Your task to perform on an android device: Empty the shopping cart on walmart.com. Add apple airpods pro to the cart on walmart.com Image 0: 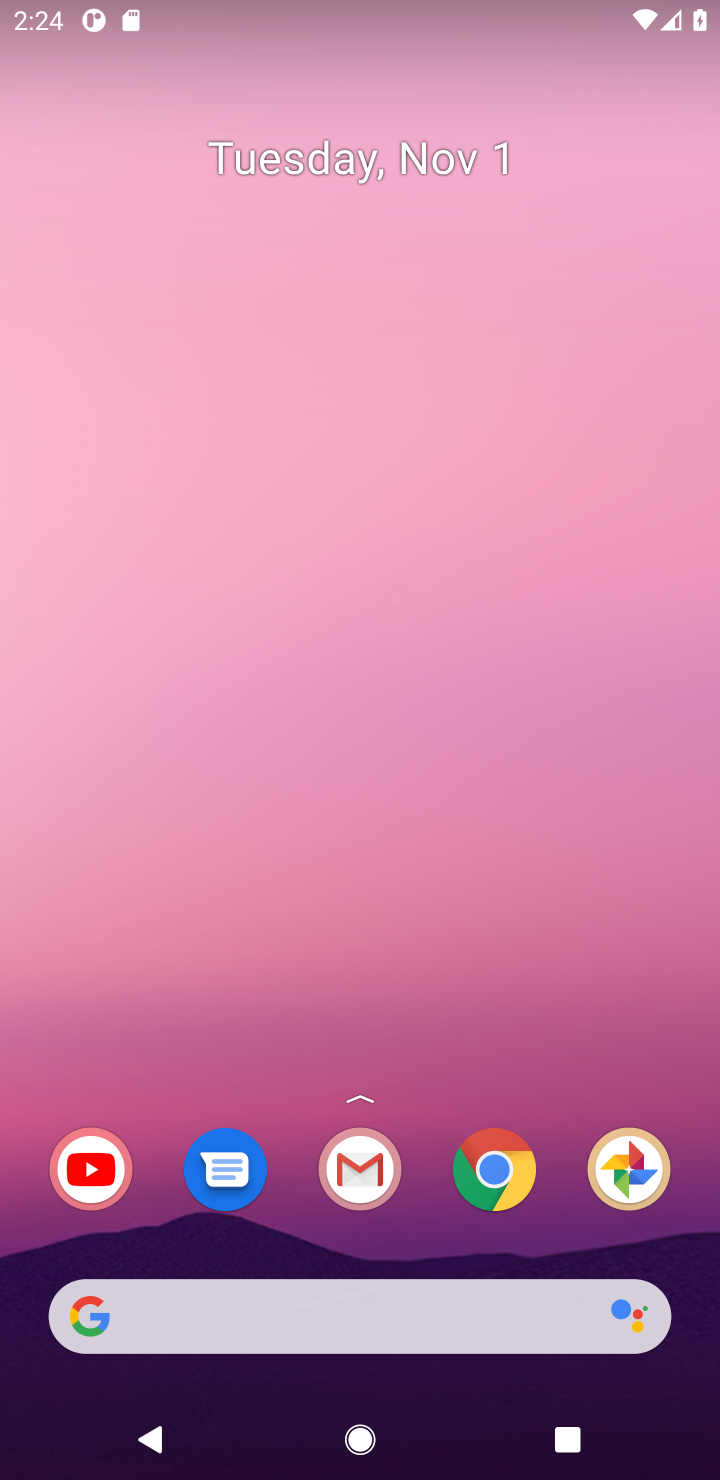
Step 0: drag from (427, 1071) to (457, 0)
Your task to perform on an android device: Empty the shopping cart on walmart.com. Add apple airpods pro to the cart on walmart.com Image 1: 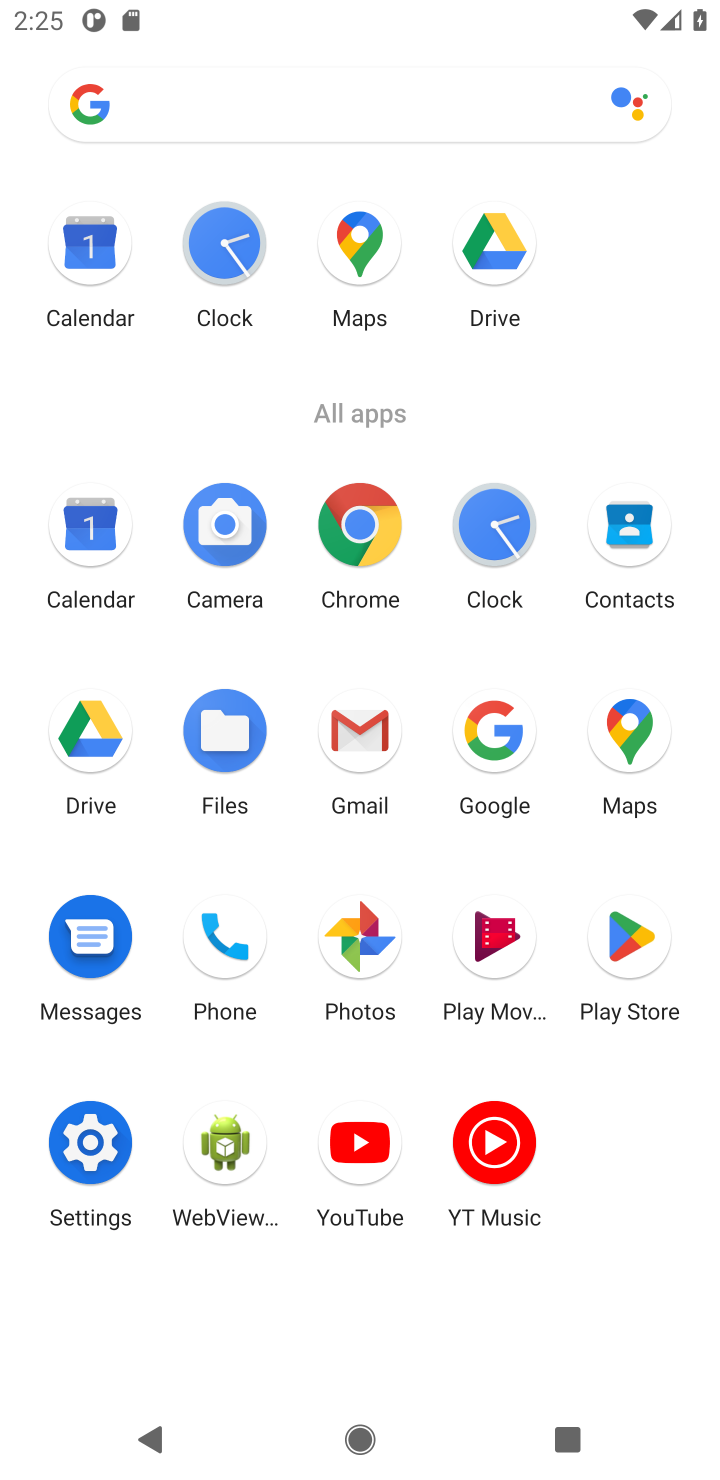
Step 1: click (354, 523)
Your task to perform on an android device: Empty the shopping cart on walmart.com. Add apple airpods pro to the cart on walmart.com Image 2: 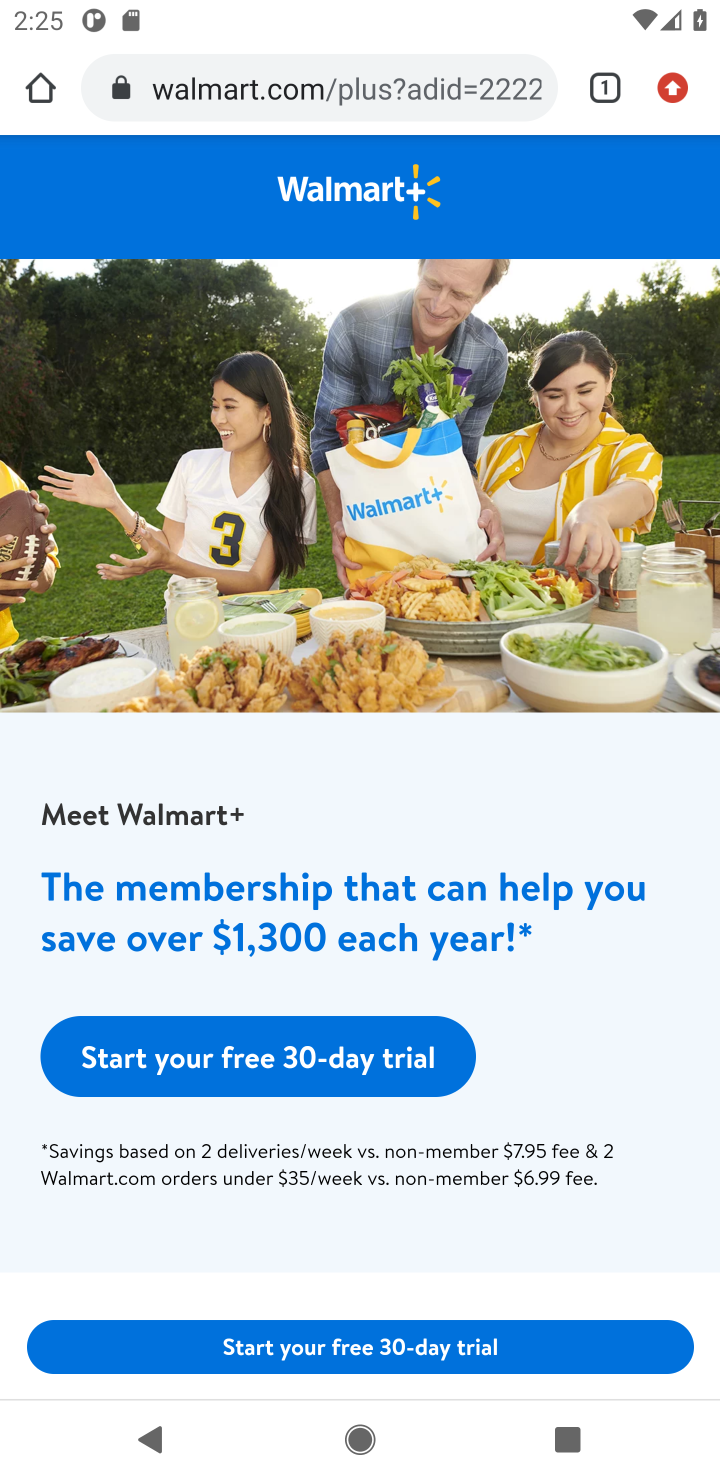
Step 2: click (259, 89)
Your task to perform on an android device: Empty the shopping cart on walmart.com. Add apple airpods pro to the cart on walmart.com Image 3: 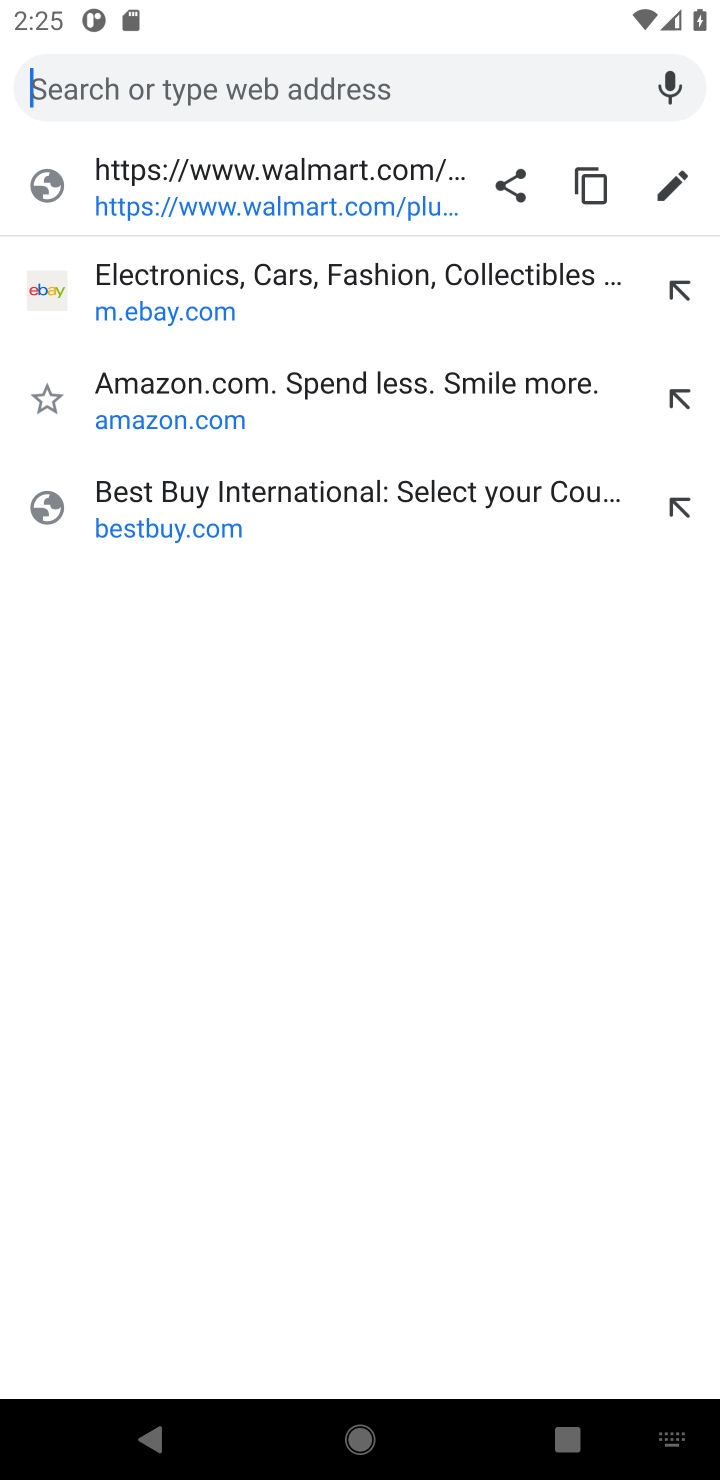
Step 3: type "walmart.com"
Your task to perform on an android device: Empty the shopping cart on walmart.com. Add apple airpods pro to the cart on walmart.com Image 4: 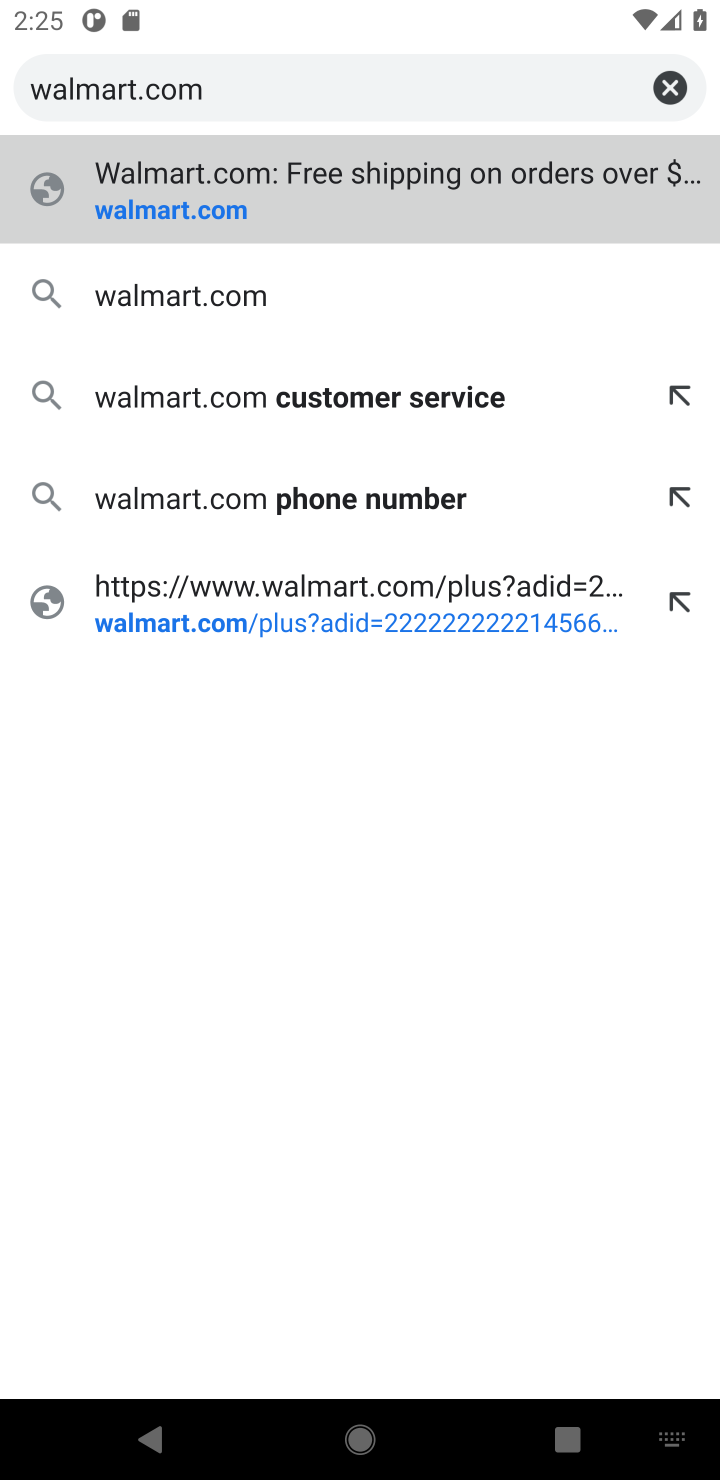
Step 4: type ""
Your task to perform on an android device: Empty the shopping cart on walmart.com. Add apple airpods pro to the cart on walmart.com Image 5: 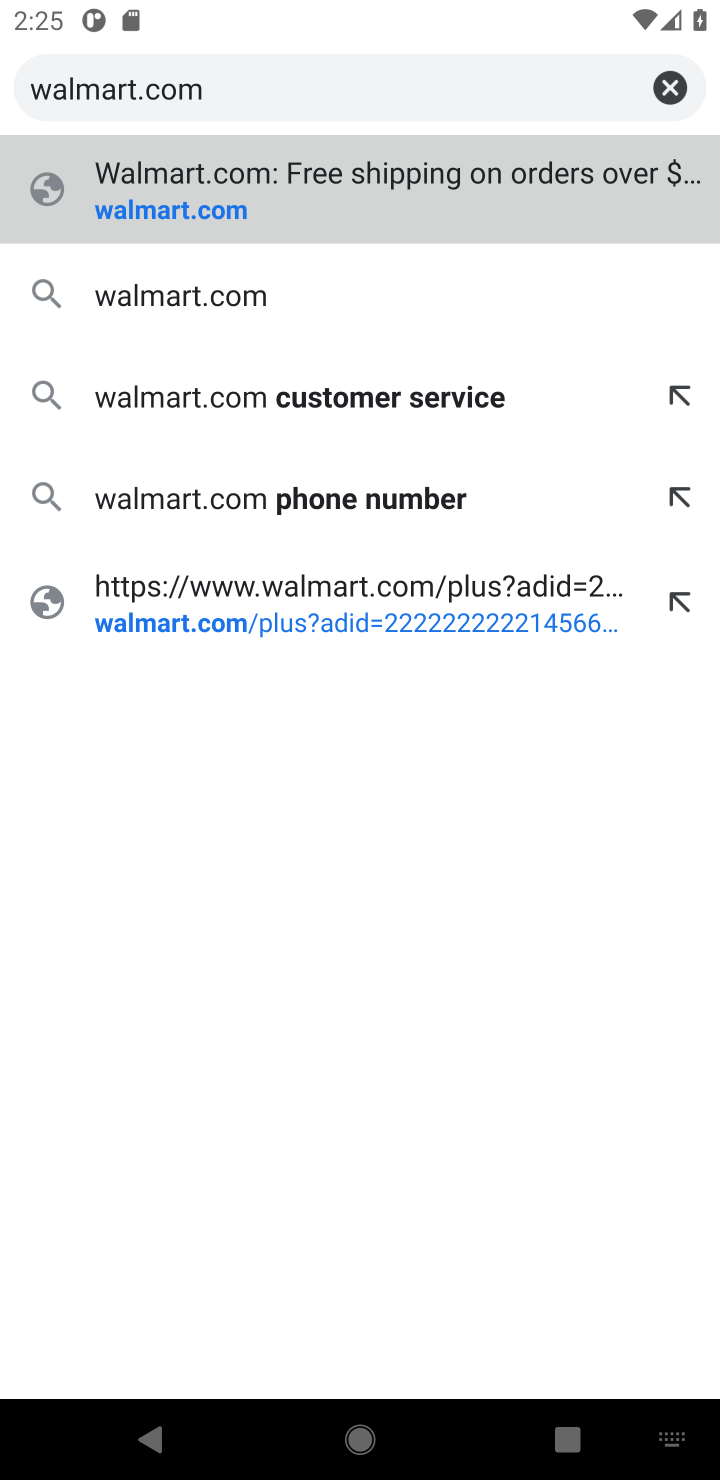
Step 5: click (272, 188)
Your task to perform on an android device: Empty the shopping cart on walmart.com. Add apple airpods pro to the cart on walmart.com Image 6: 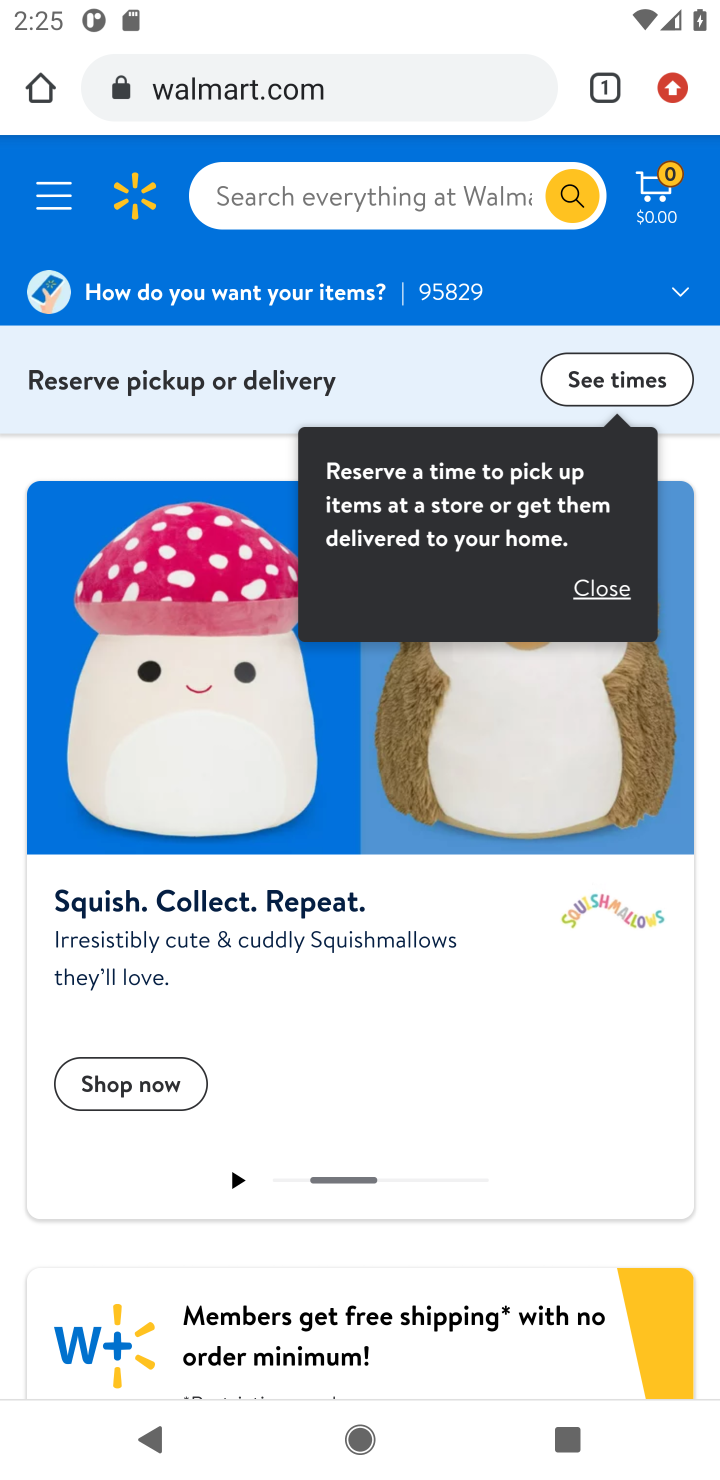
Step 6: click (621, 591)
Your task to perform on an android device: Empty the shopping cart on walmart.com. Add apple airpods pro to the cart on walmart.com Image 7: 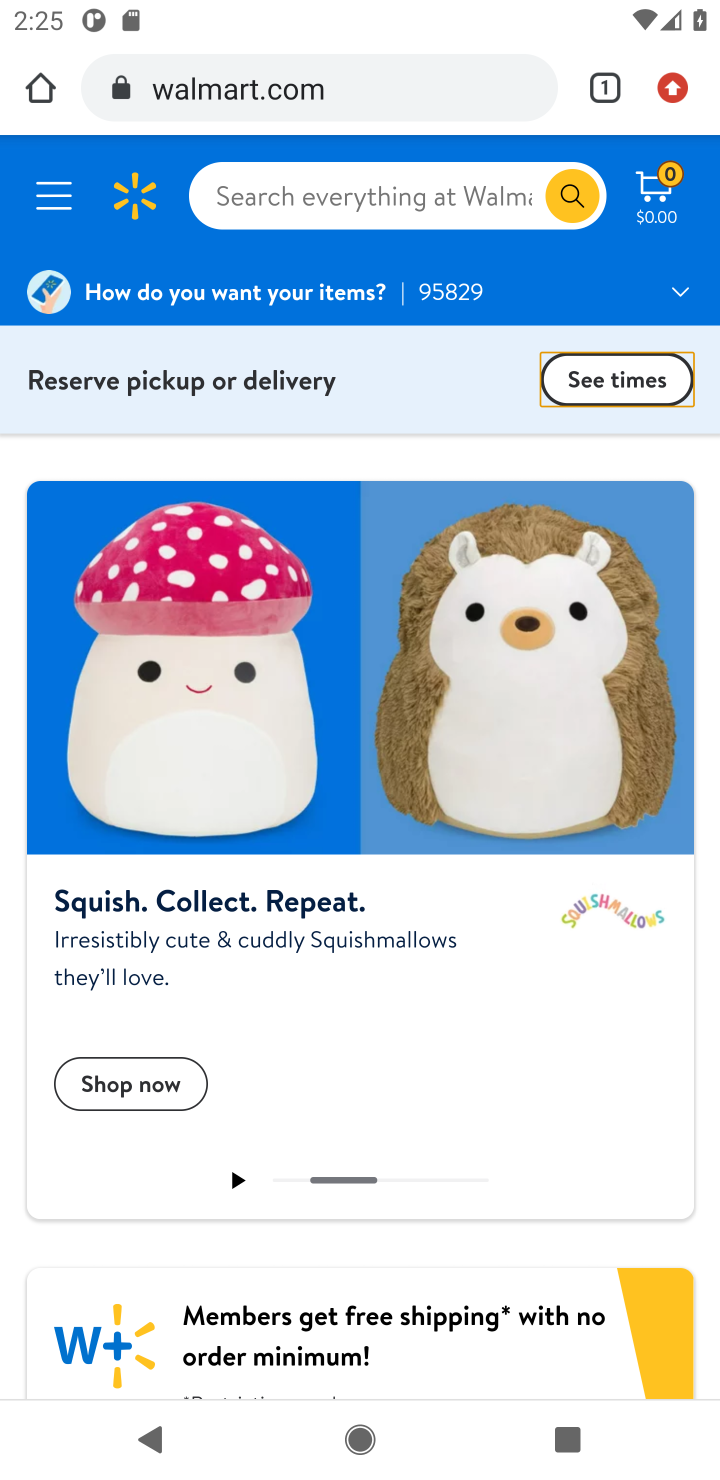
Step 7: click (307, 185)
Your task to perform on an android device: Empty the shopping cart on walmart.com. Add apple airpods pro to the cart on walmart.com Image 8: 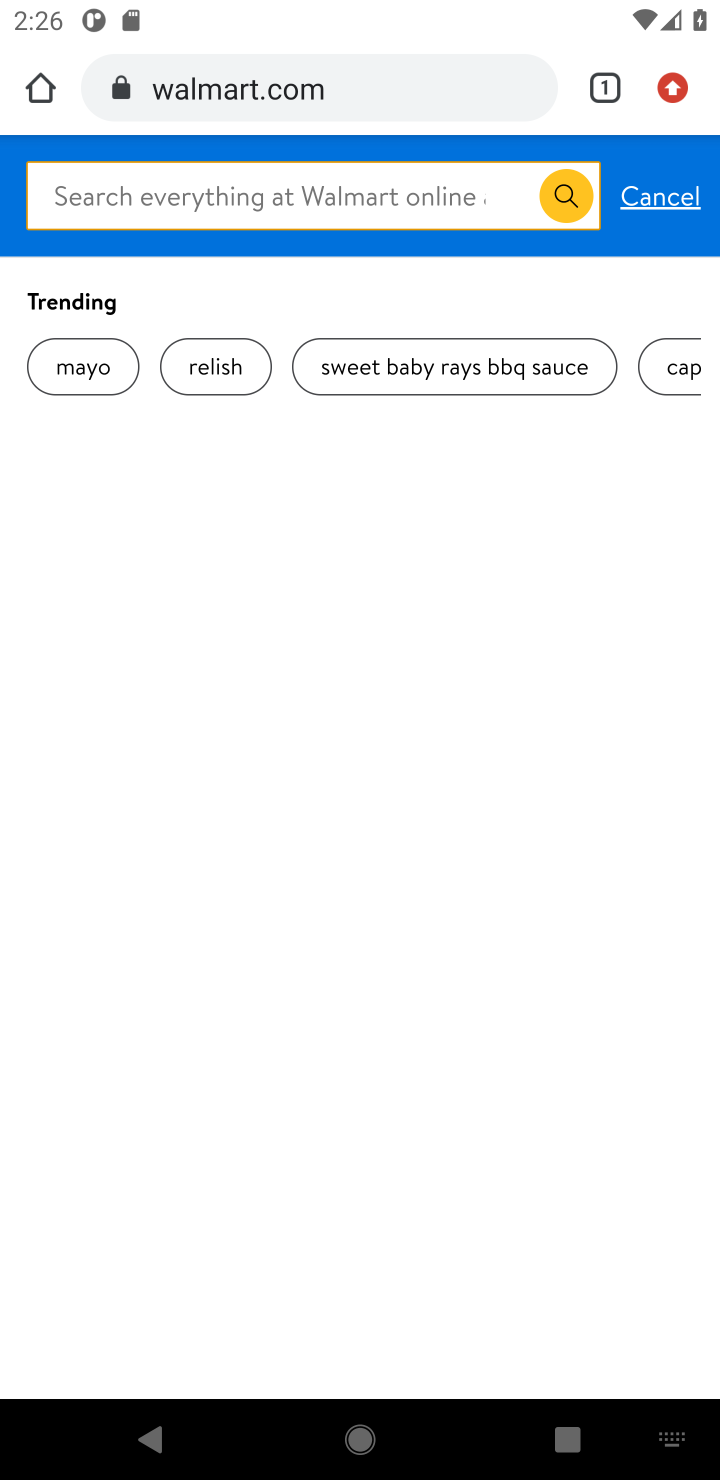
Step 8: type "apple airpods pro"
Your task to perform on an android device: Empty the shopping cart on walmart.com. Add apple airpods pro to the cart on walmart.com Image 9: 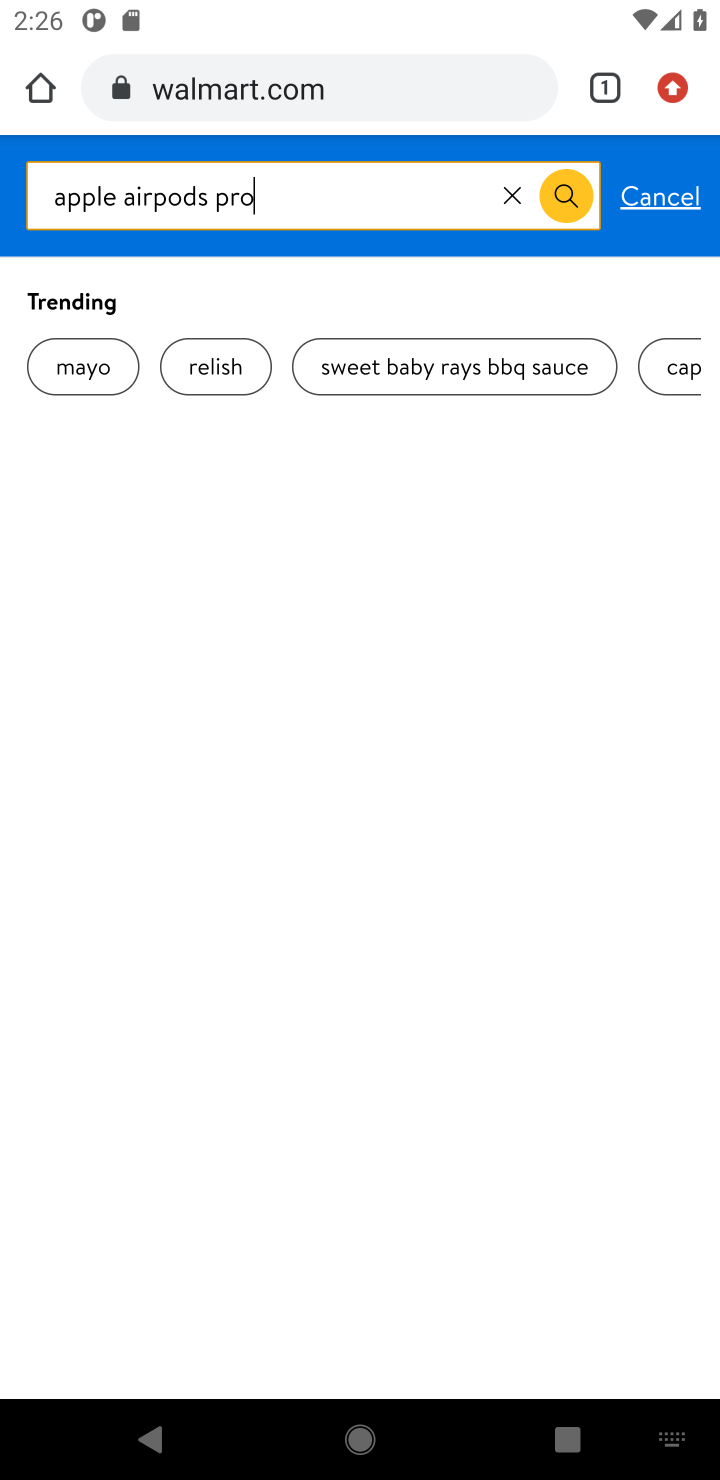
Step 9: type ""
Your task to perform on an android device: Empty the shopping cart on walmart.com. Add apple airpods pro to the cart on walmart.com Image 10: 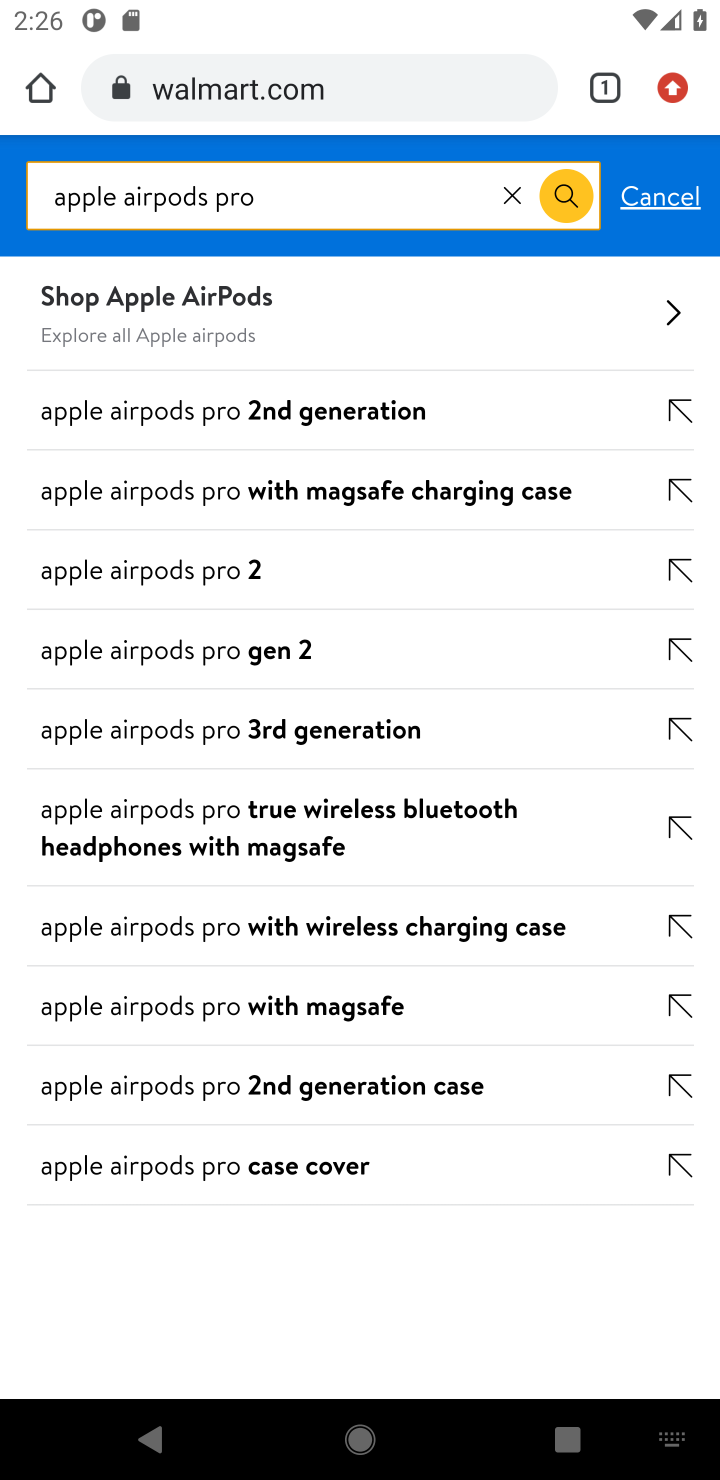
Step 10: click (261, 575)
Your task to perform on an android device: Empty the shopping cart on walmart.com. Add apple airpods pro to the cart on walmart.com Image 11: 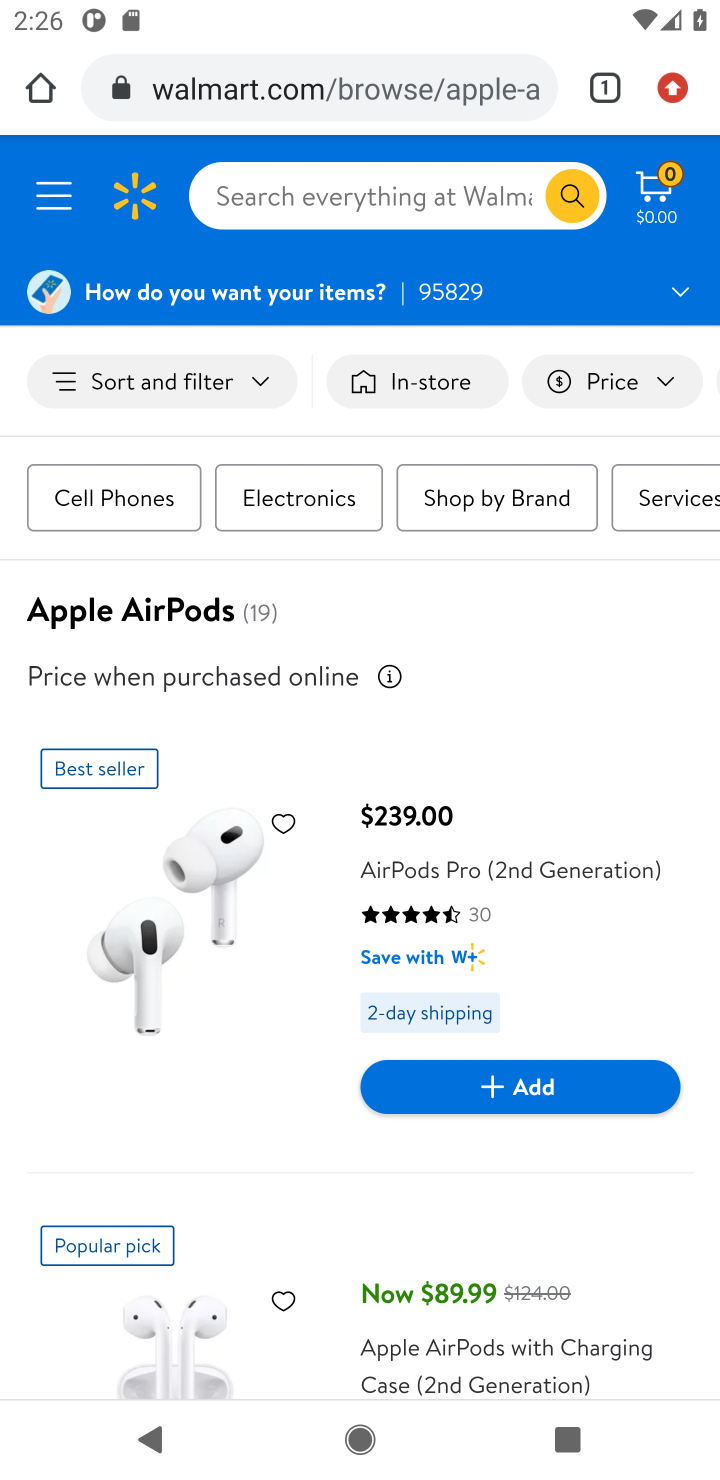
Step 11: click (448, 886)
Your task to perform on an android device: Empty the shopping cart on walmart.com. Add apple airpods pro to the cart on walmart.com Image 12: 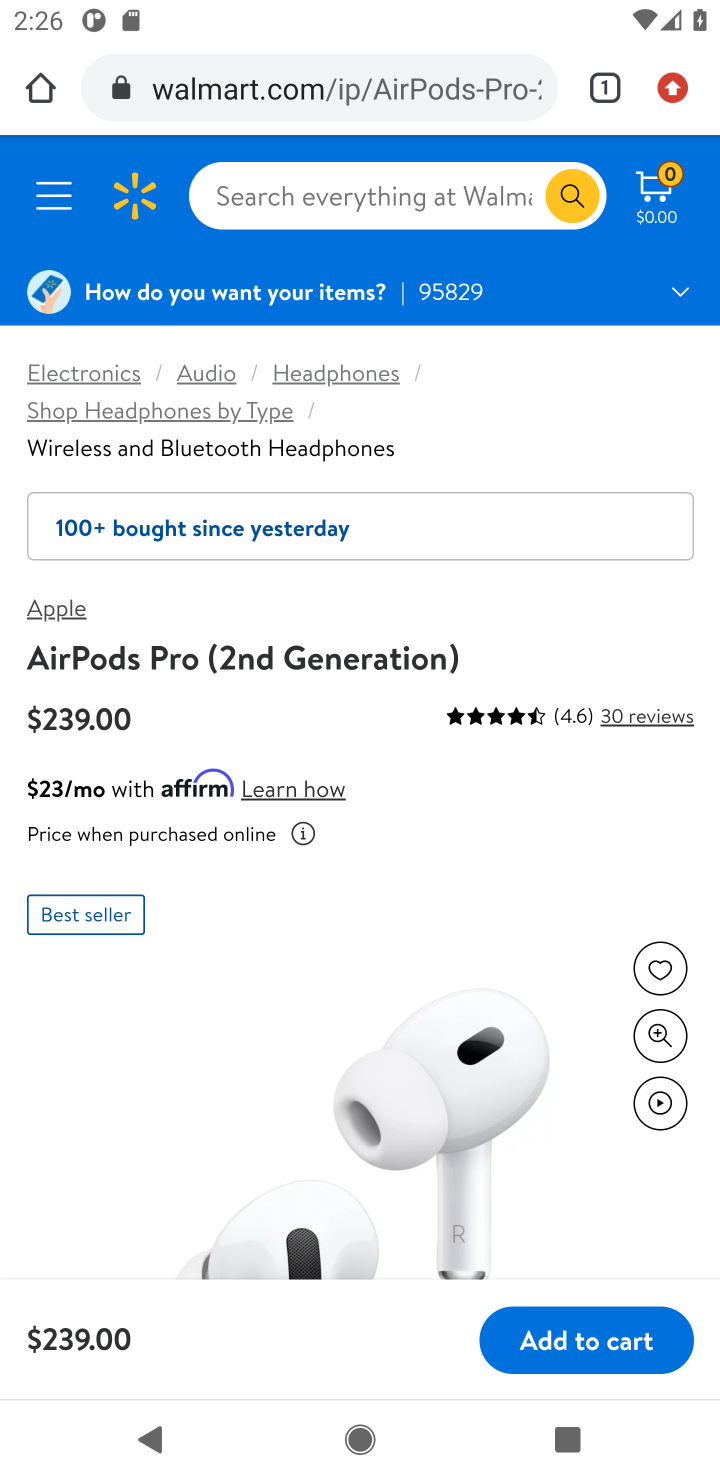
Step 12: drag from (217, 1046) to (325, 306)
Your task to perform on an android device: Empty the shopping cart on walmart.com. Add apple airpods pro to the cart on walmart.com Image 13: 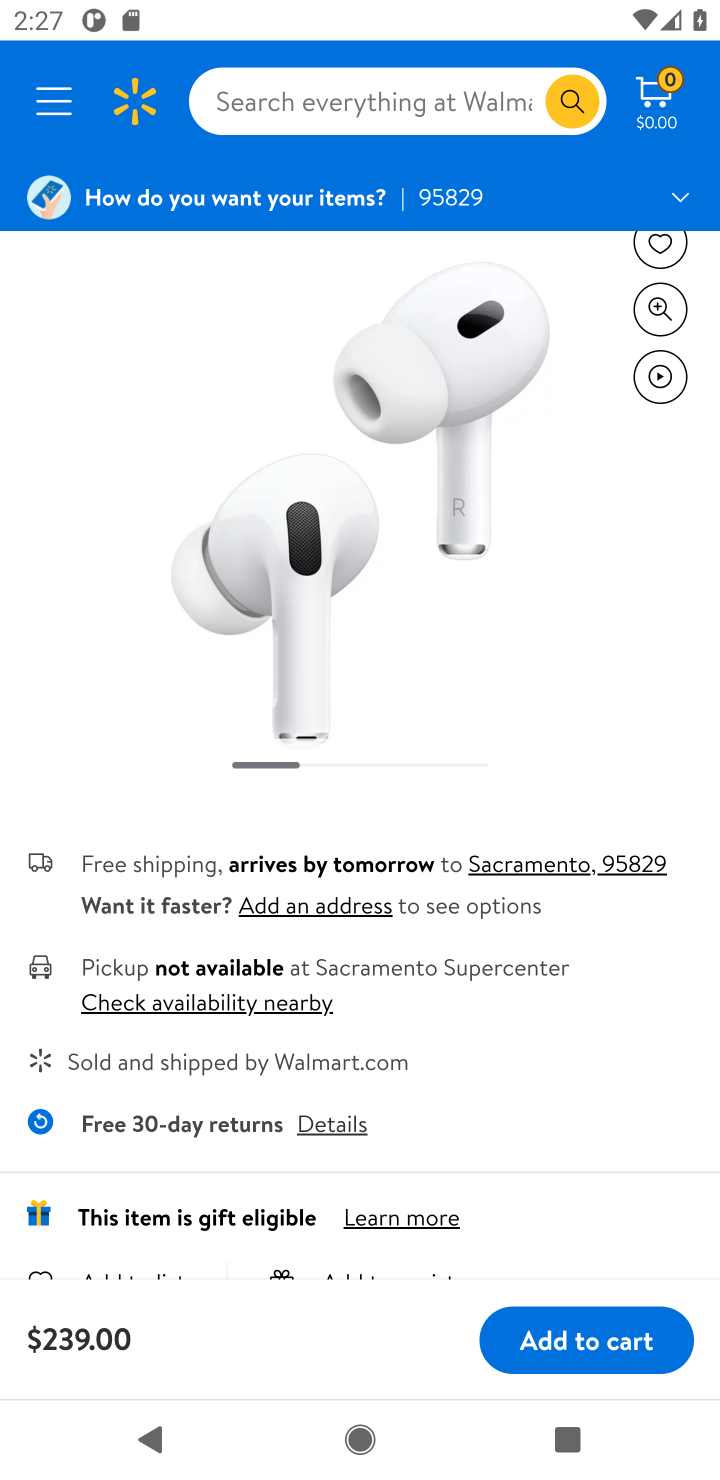
Step 13: click (587, 1336)
Your task to perform on an android device: Empty the shopping cart on walmart.com. Add apple airpods pro to the cart on walmart.com Image 14: 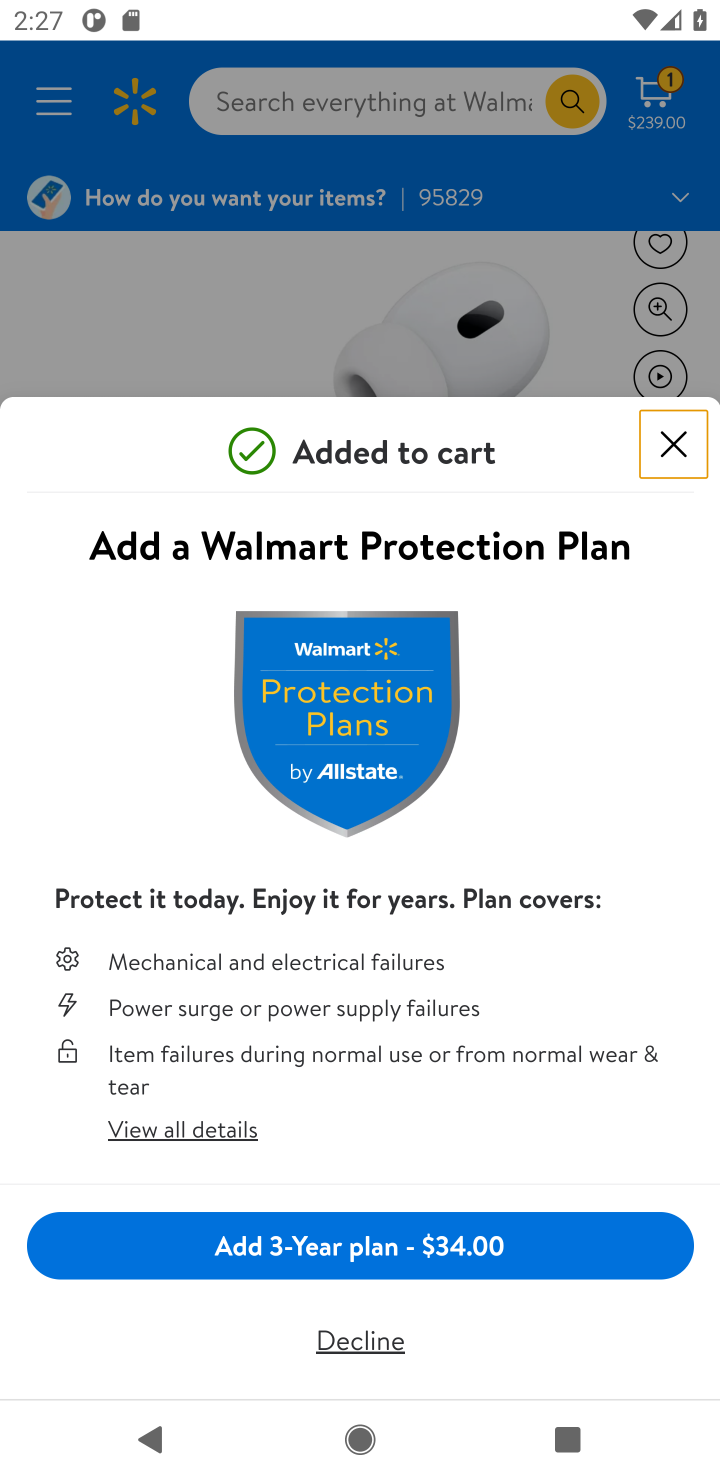
Step 14: click (670, 436)
Your task to perform on an android device: Empty the shopping cart on walmart.com. Add apple airpods pro to the cart on walmart.com Image 15: 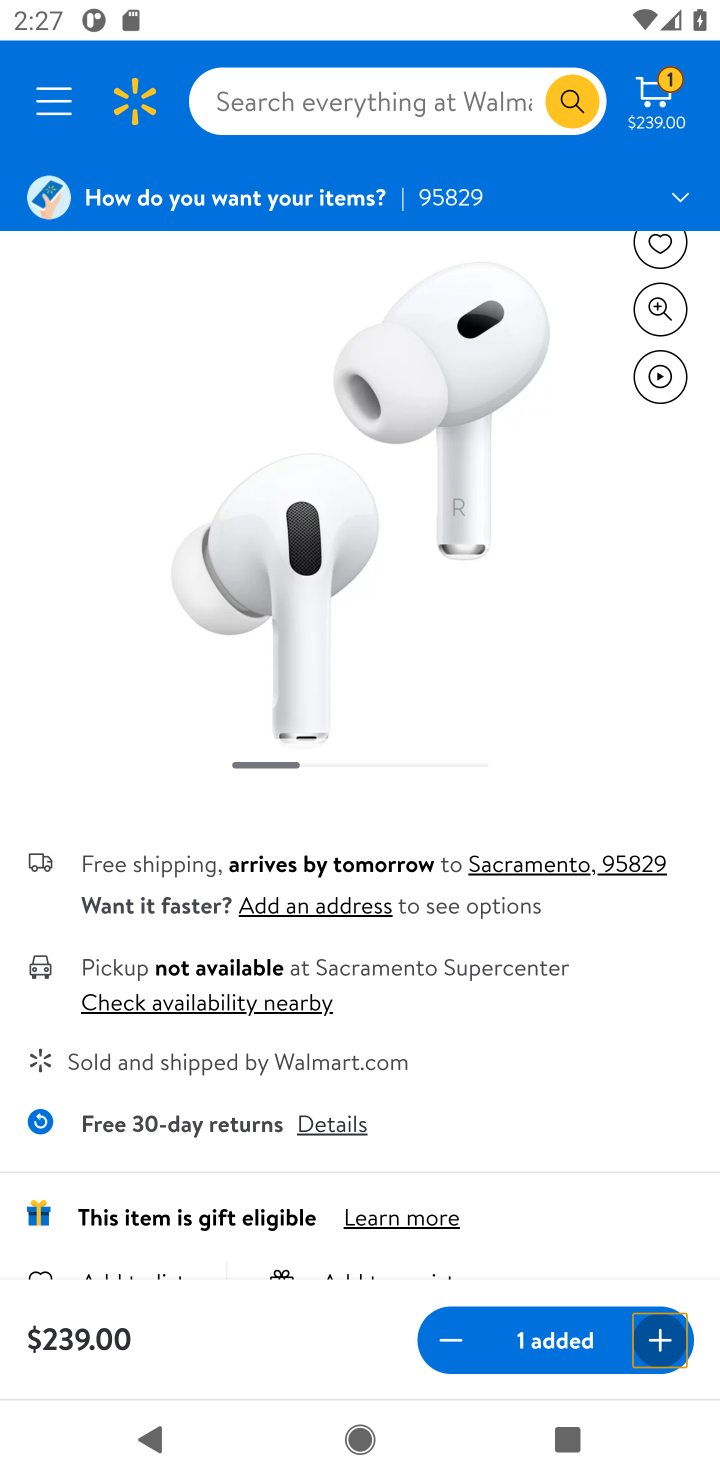
Step 15: click (658, 73)
Your task to perform on an android device: Empty the shopping cart on walmart.com. Add apple airpods pro to the cart on walmart.com Image 16: 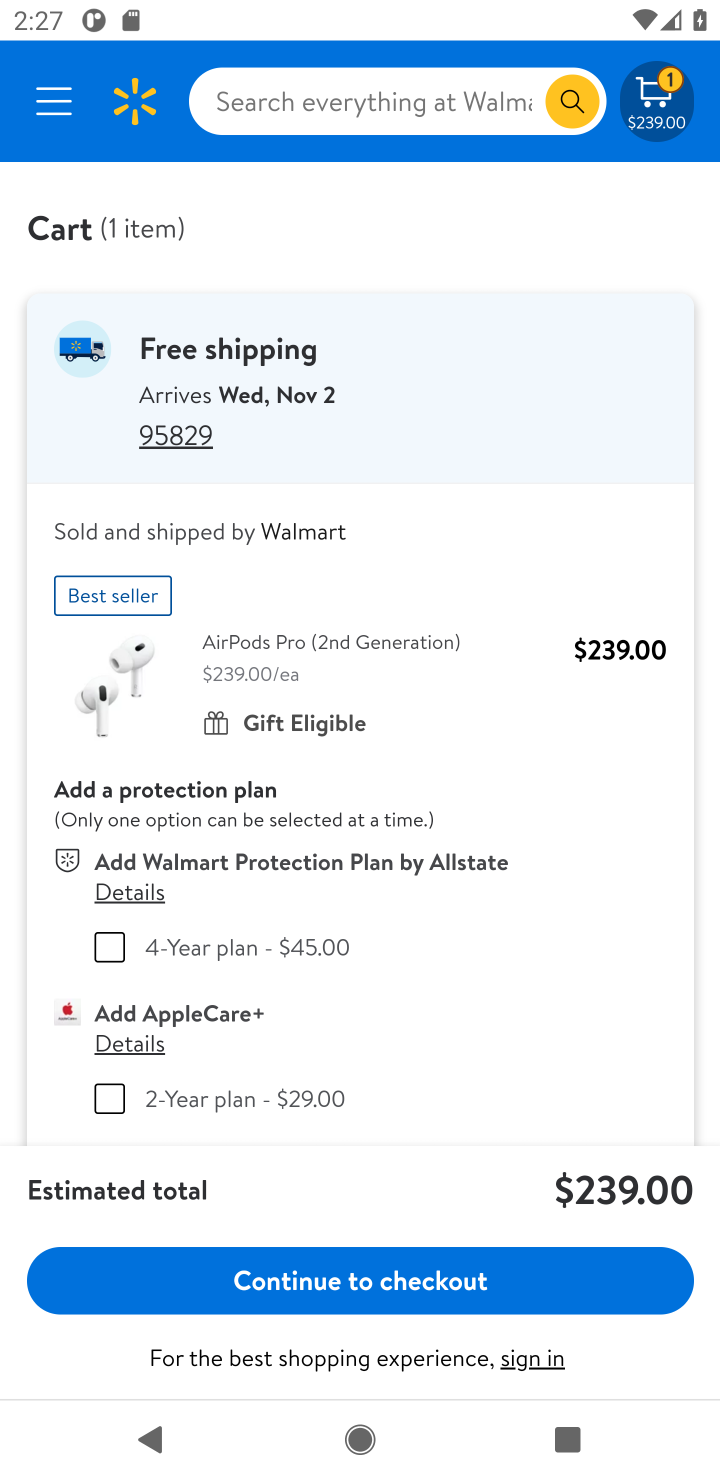
Step 16: click (349, 1295)
Your task to perform on an android device: Empty the shopping cart on walmart.com. Add apple airpods pro to the cart on walmart.com Image 17: 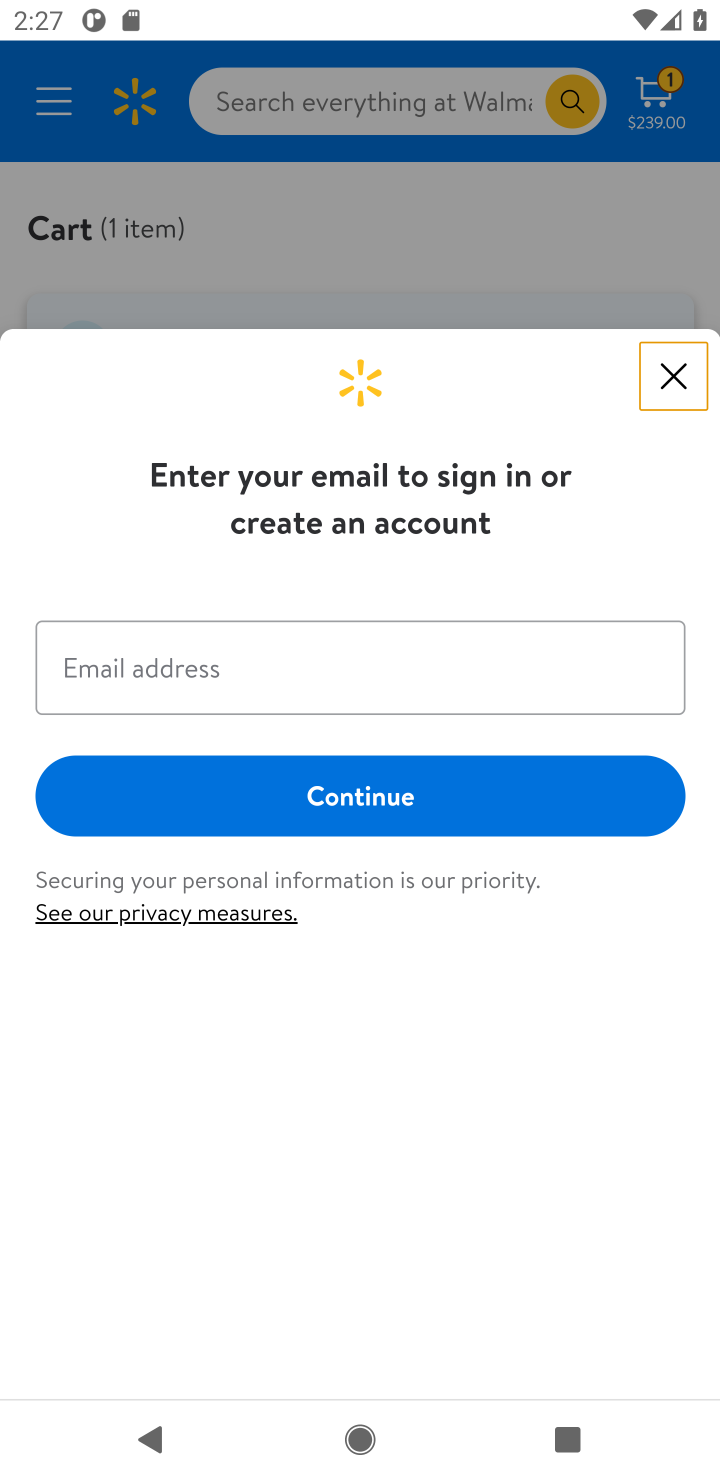
Step 17: click (671, 378)
Your task to perform on an android device: Empty the shopping cart on walmart.com. Add apple airpods pro to the cart on walmart.com Image 18: 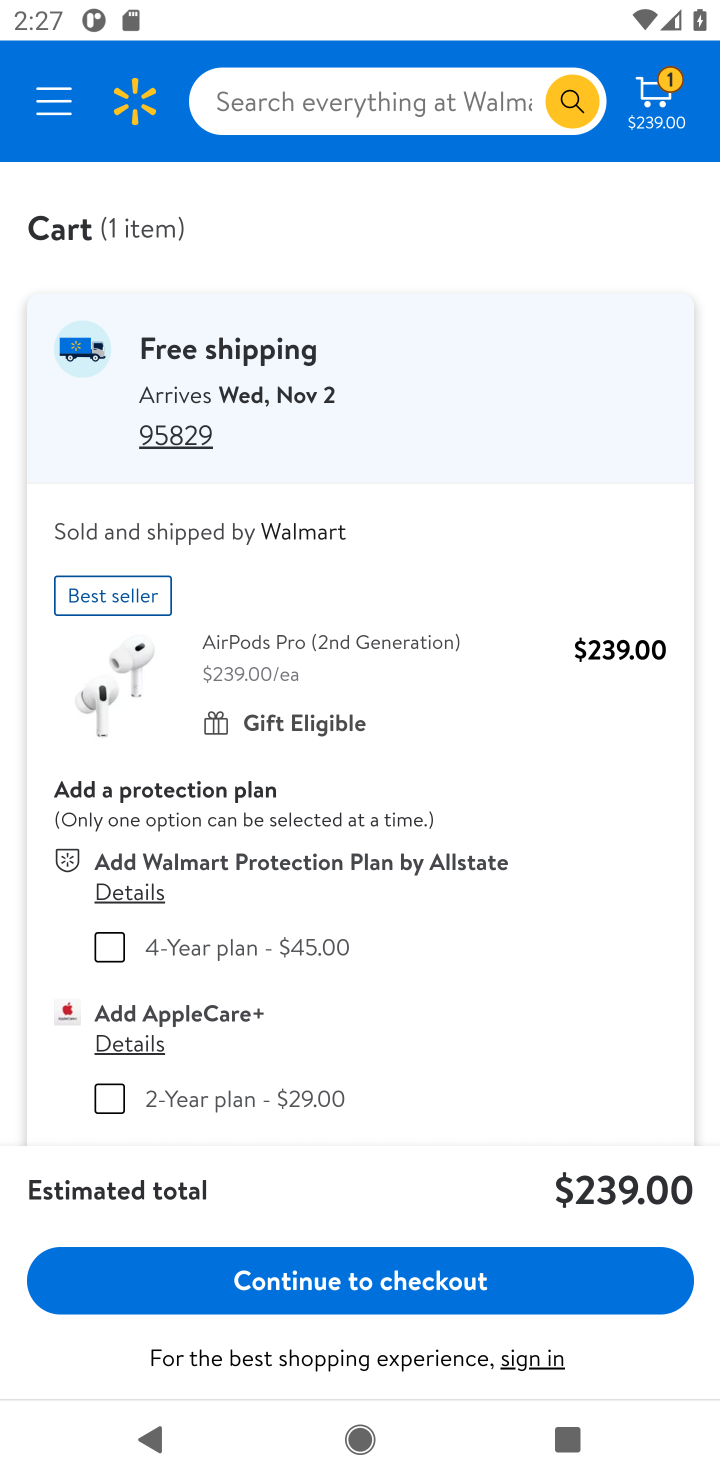
Step 18: task complete